Your task to perform on an android device: install app "Google News" Image 0: 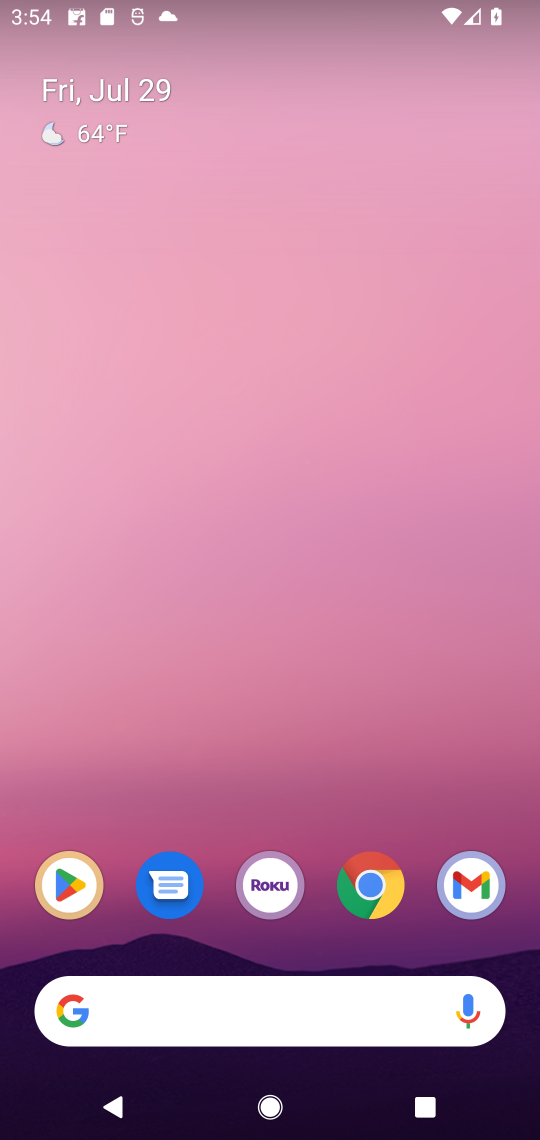
Step 0: click (75, 889)
Your task to perform on an android device: install app "Google News" Image 1: 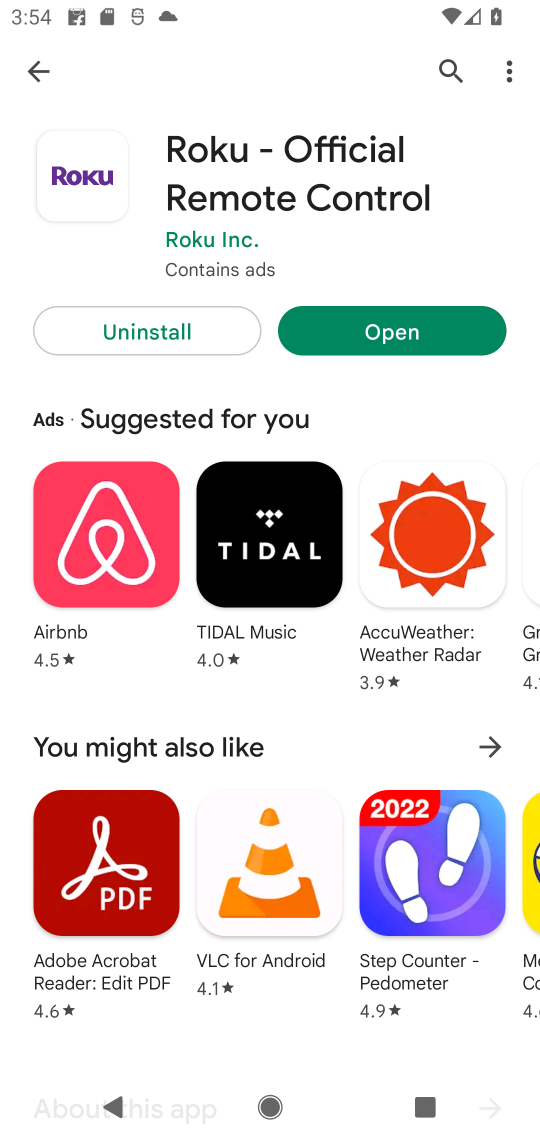
Step 1: click (444, 72)
Your task to perform on an android device: install app "Google News" Image 2: 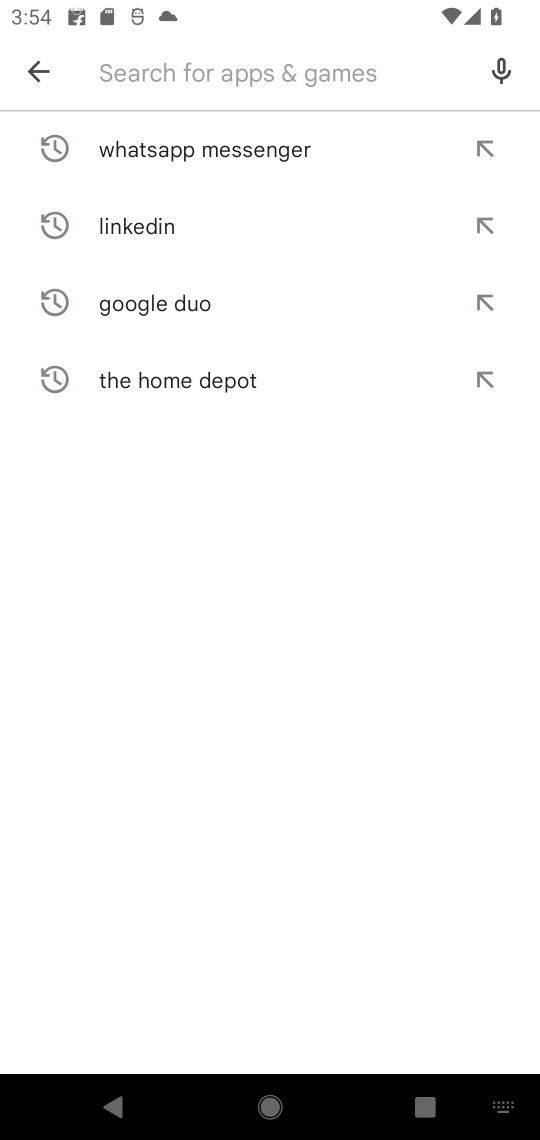
Step 2: type "Google News"
Your task to perform on an android device: install app "Google News" Image 3: 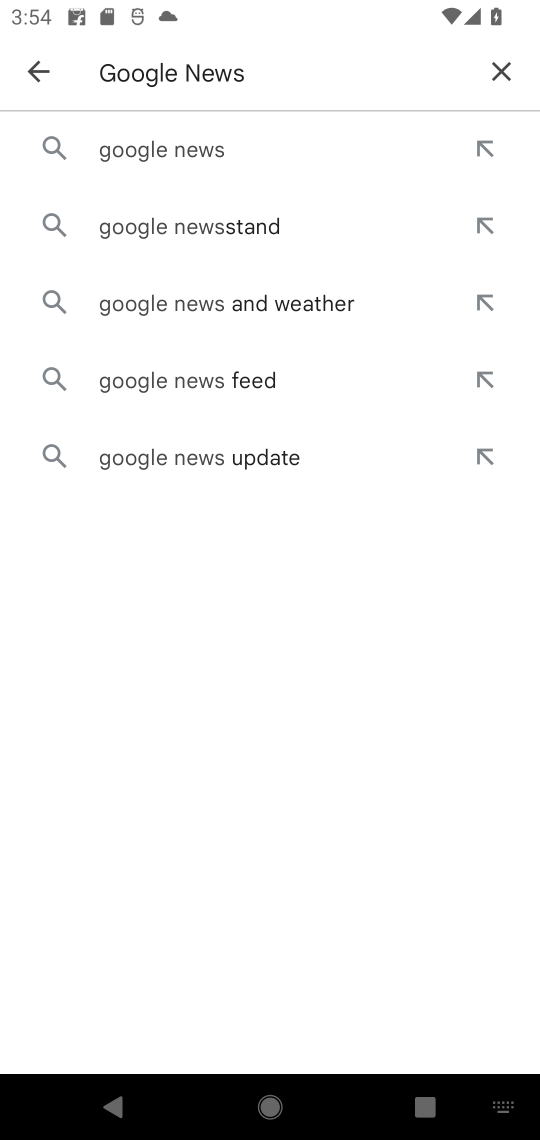
Step 3: click (178, 141)
Your task to perform on an android device: install app "Google News" Image 4: 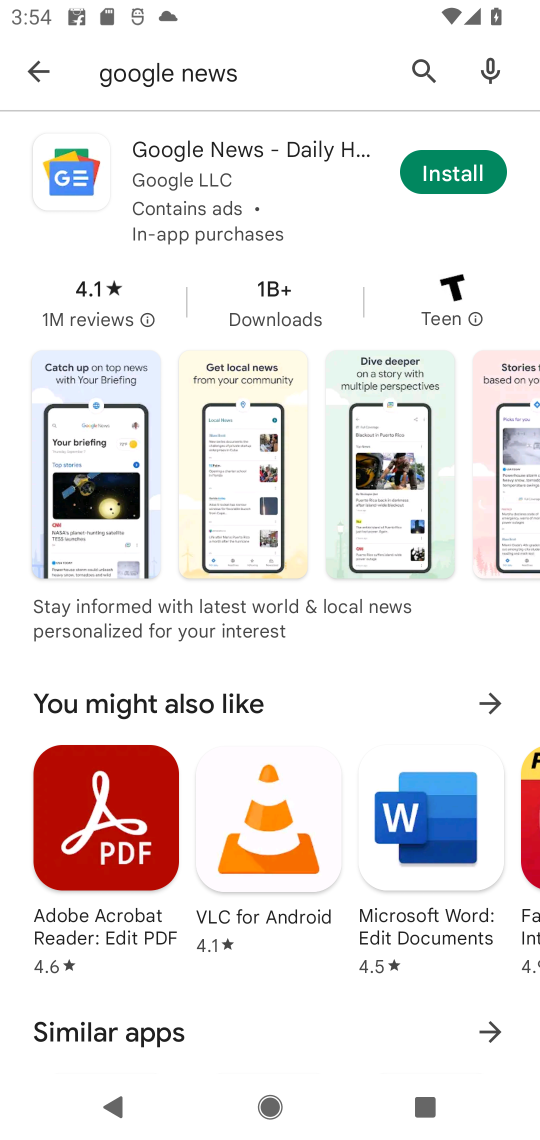
Step 4: click (462, 175)
Your task to perform on an android device: install app "Google News" Image 5: 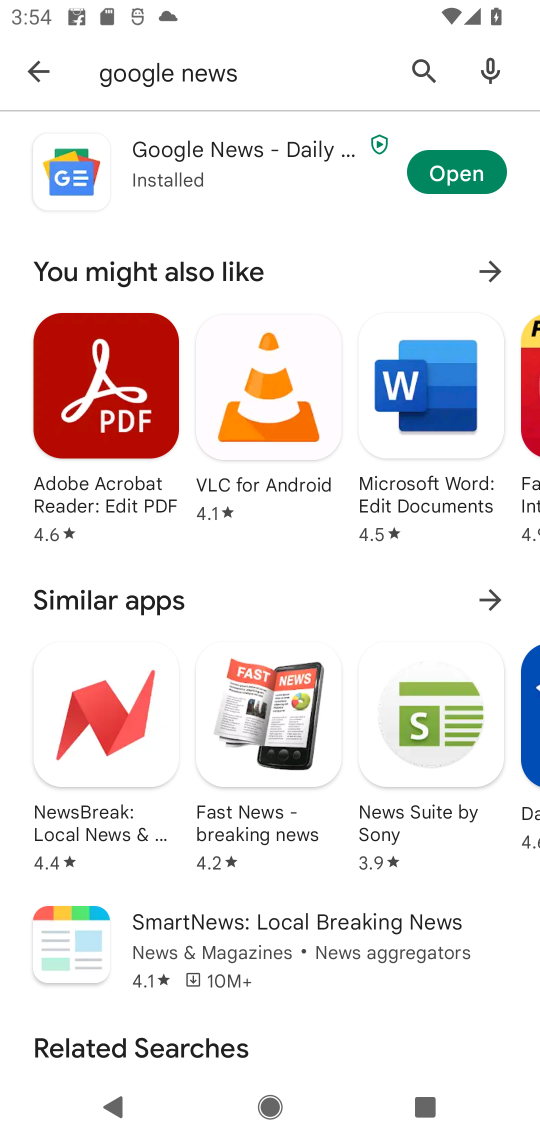
Step 5: task complete